Your task to perform on an android device: turn on sleep mode Image 0: 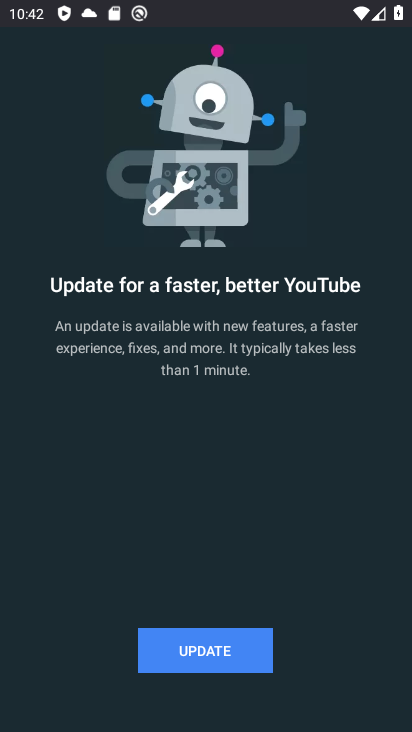
Step 0: press home button
Your task to perform on an android device: turn on sleep mode Image 1: 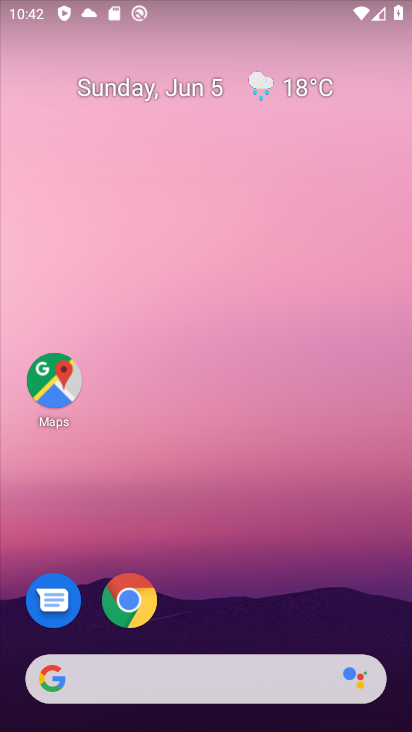
Step 1: drag from (198, 616) to (198, 274)
Your task to perform on an android device: turn on sleep mode Image 2: 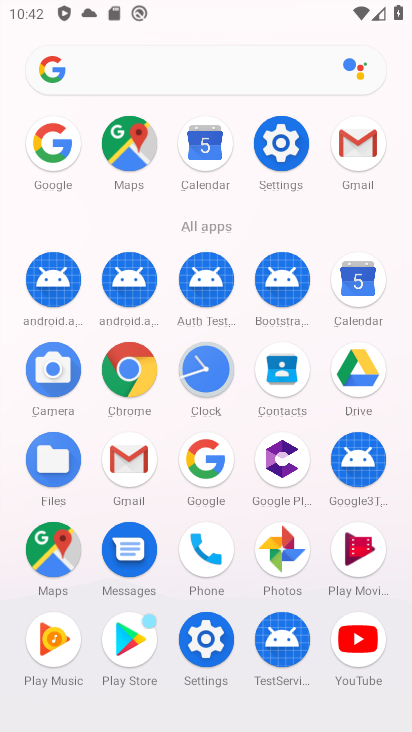
Step 2: click (286, 172)
Your task to perform on an android device: turn on sleep mode Image 3: 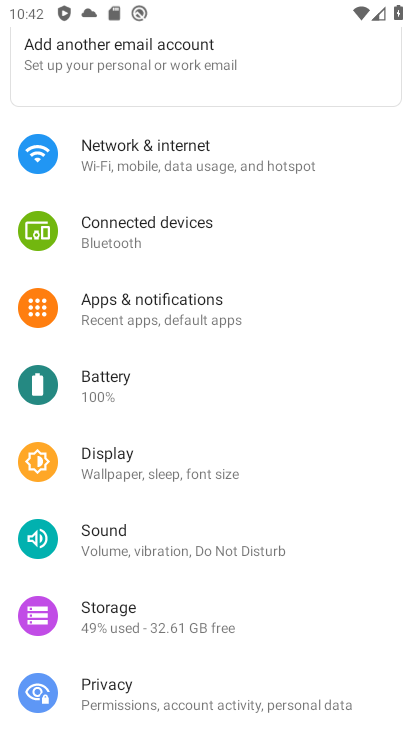
Step 3: click (136, 449)
Your task to perform on an android device: turn on sleep mode Image 4: 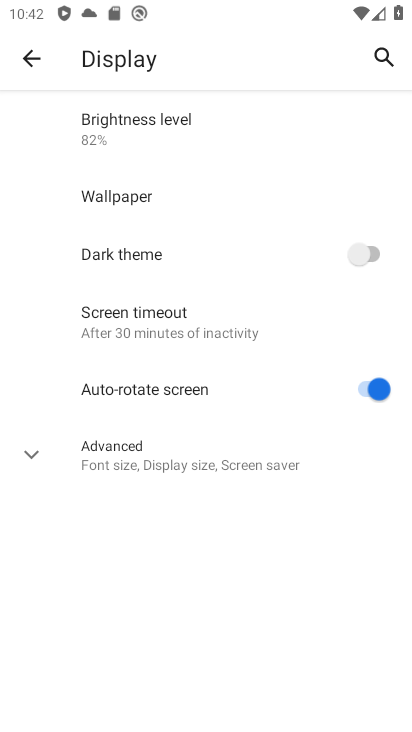
Step 4: click (178, 328)
Your task to perform on an android device: turn on sleep mode Image 5: 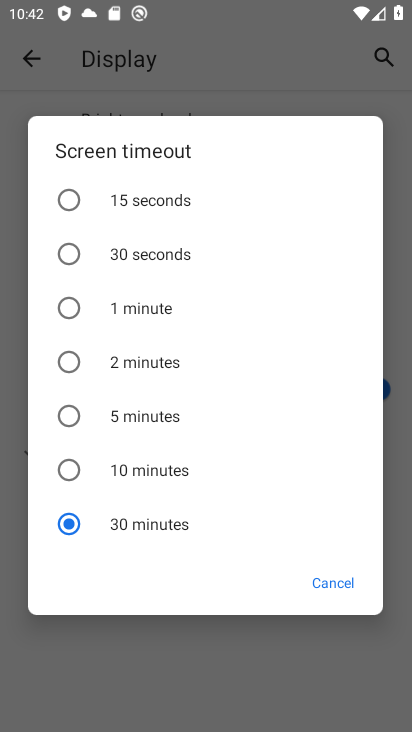
Step 5: click (148, 354)
Your task to perform on an android device: turn on sleep mode Image 6: 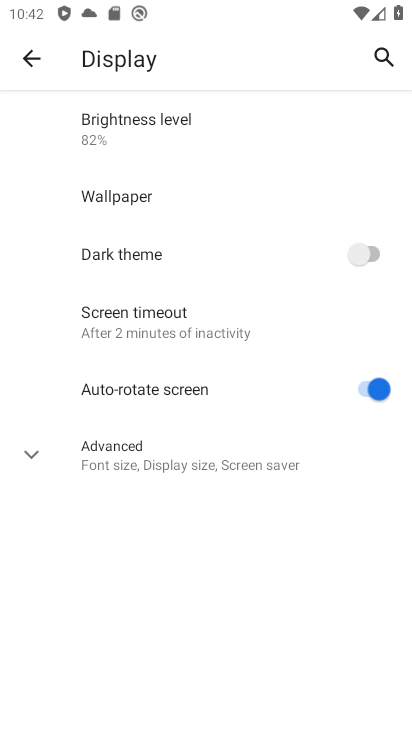
Step 6: task complete